Your task to perform on an android device: turn on the 12-hour format for clock Image 0: 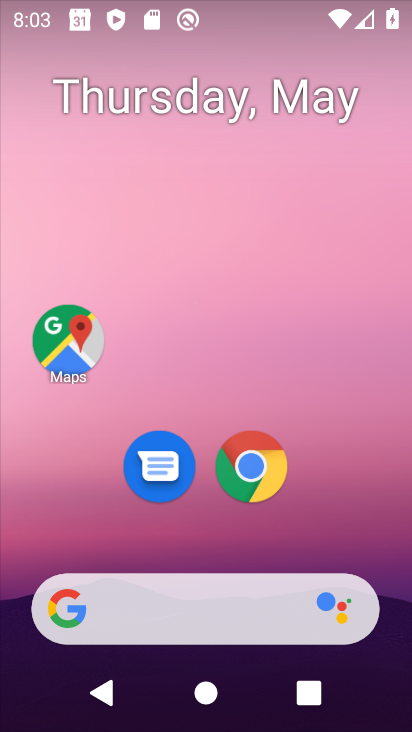
Step 0: drag from (386, 571) to (320, 190)
Your task to perform on an android device: turn on the 12-hour format for clock Image 1: 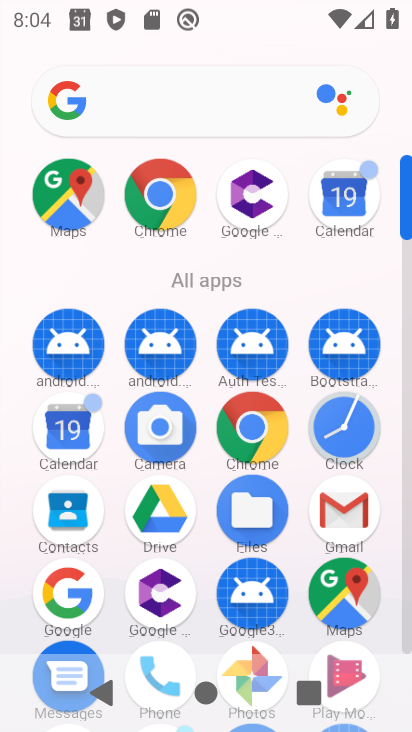
Step 1: click (356, 423)
Your task to perform on an android device: turn on the 12-hour format for clock Image 2: 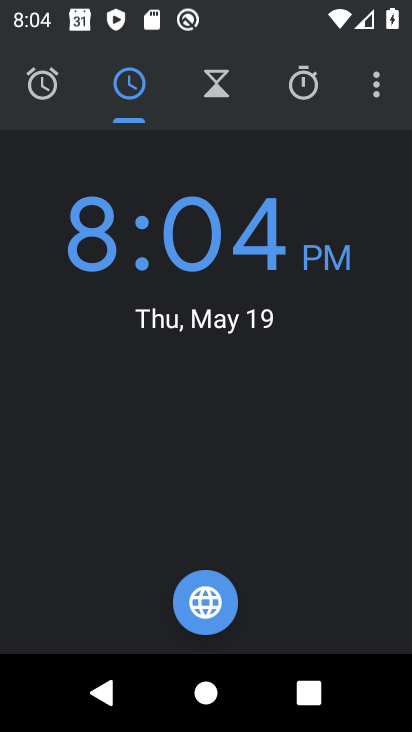
Step 2: click (379, 106)
Your task to perform on an android device: turn on the 12-hour format for clock Image 3: 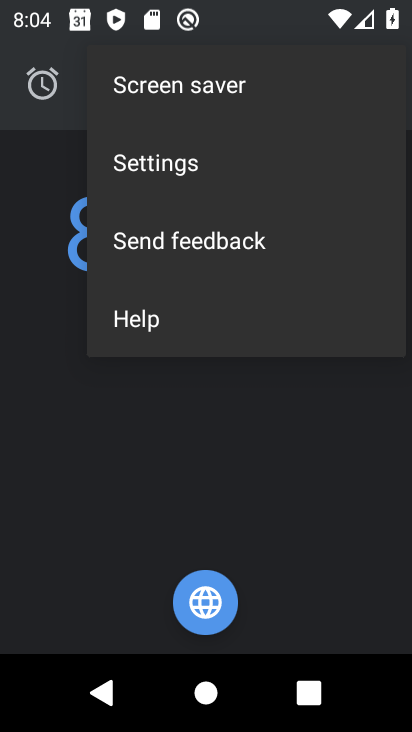
Step 3: click (344, 164)
Your task to perform on an android device: turn on the 12-hour format for clock Image 4: 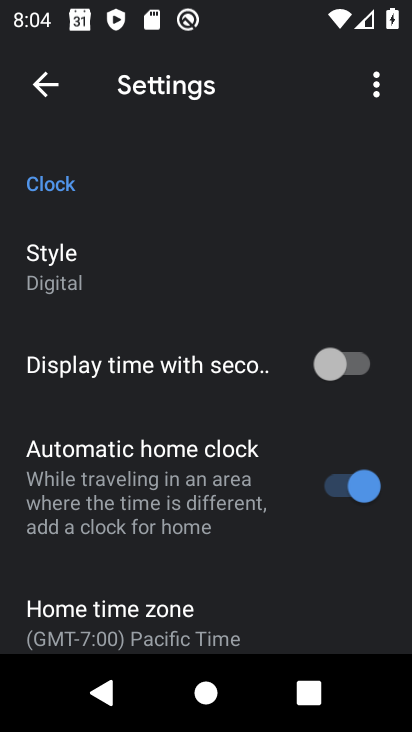
Step 4: drag from (296, 502) to (278, 63)
Your task to perform on an android device: turn on the 12-hour format for clock Image 5: 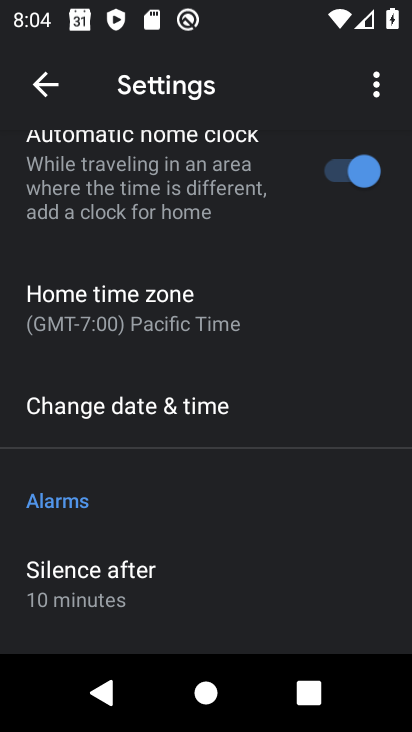
Step 5: click (256, 400)
Your task to perform on an android device: turn on the 12-hour format for clock Image 6: 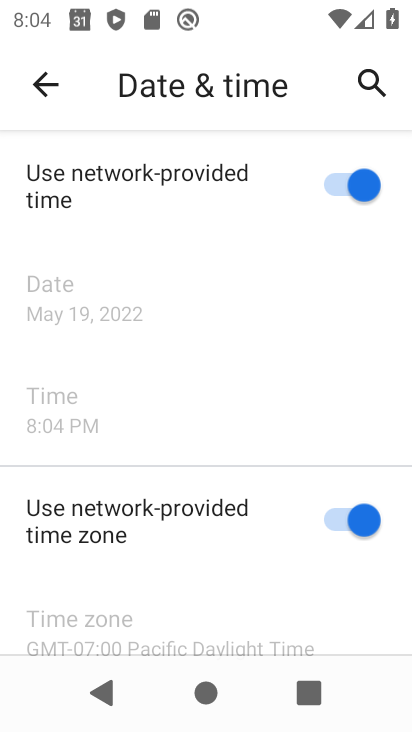
Step 6: task complete